Your task to perform on an android device: Toggle the flashlight Image 0: 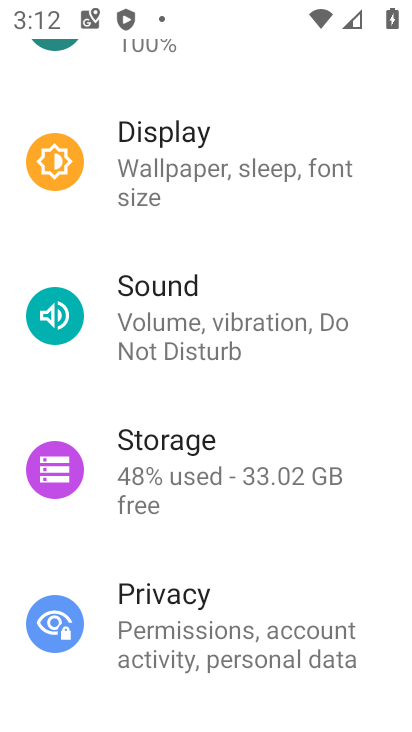
Step 0: press home button
Your task to perform on an android device: Toggle the flashlight Image 1: 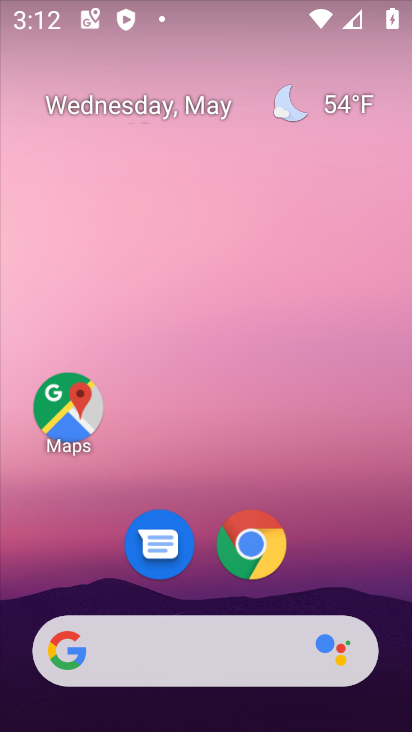
Step 1: drag from (313, 582) to (302, 203)
Your task to perform on an android device: Toggle the flashlight Image 2: 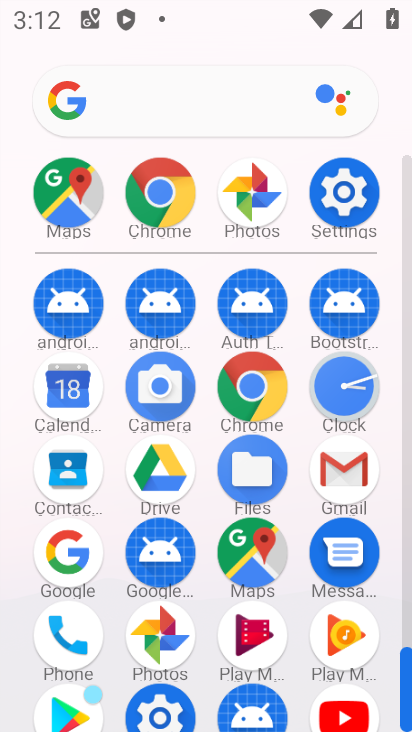
Step 2: click (367, 199)
Your task to perform on an android device: Toggle the flashlight Image 3: 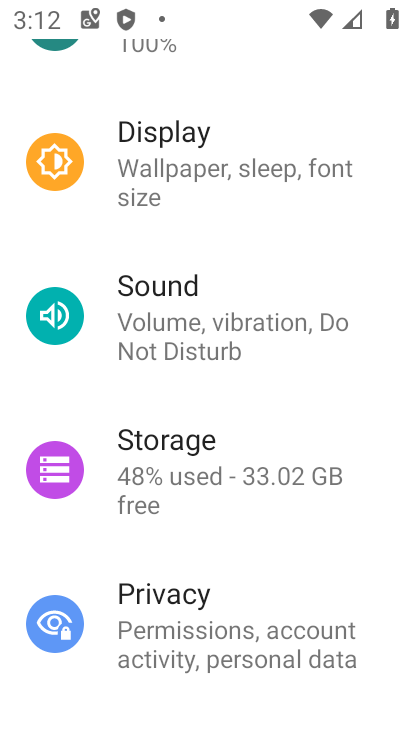
Step 3: task complete